Your task to perform on an android device: change keyboard looks Image 0: 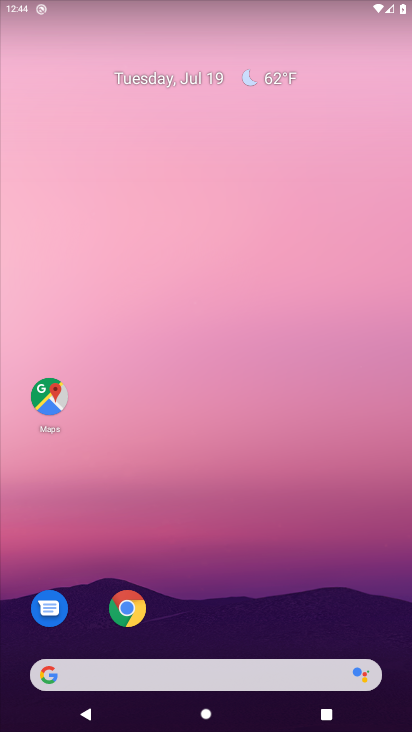
Step 0: press home button
Your task to perform on an android device: change keyboard looks Image 1: 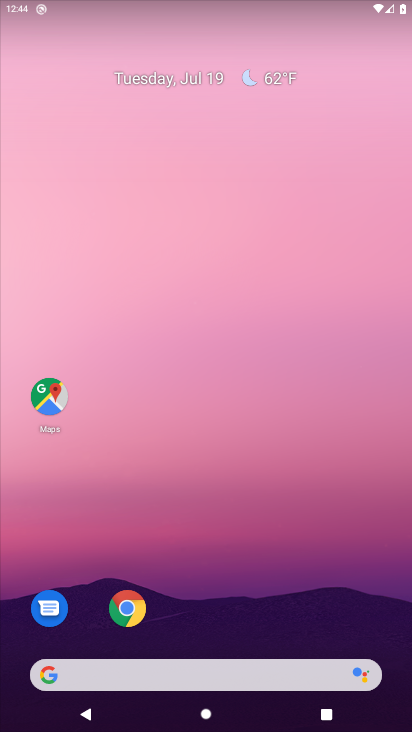
Step 1: drag from (227, 635) to (296, 59)
Your task to perform on an android device: change keyboard looks Image 2: 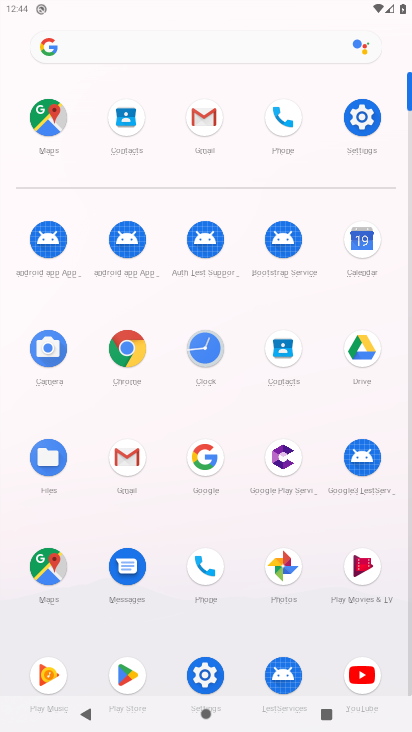
Step 2: click (358, 120)
Your task to perform on an android device: change keyboard looks Image 3: 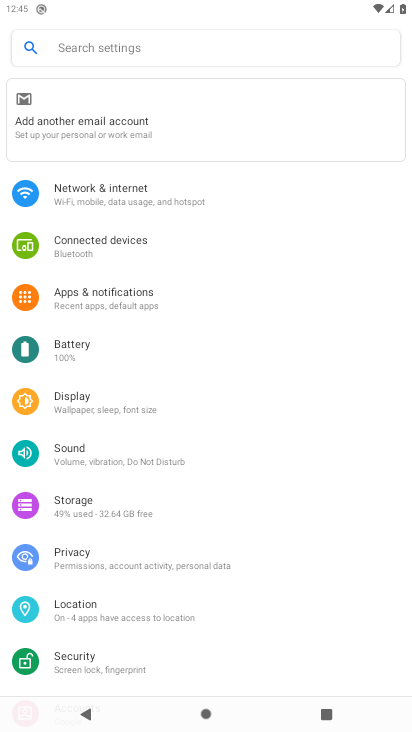
Step 3: drag from (195, 661) to (231, 87)
Your task to perform on an android device: change keyboard looks Image 4: 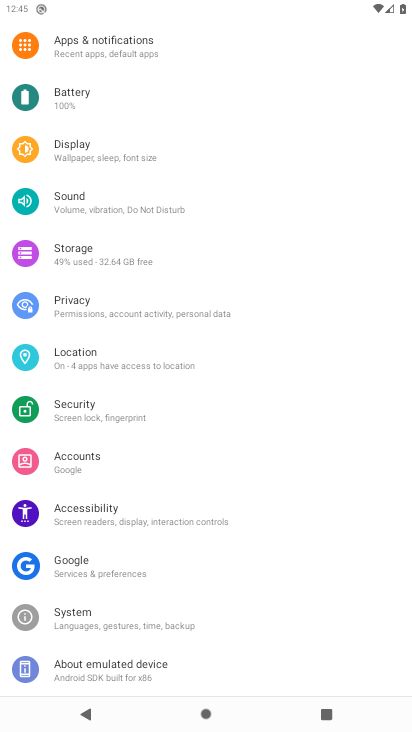
Step 4: click (143, 607)
Your task to perform on an android device: change keyboard looks Image 5: 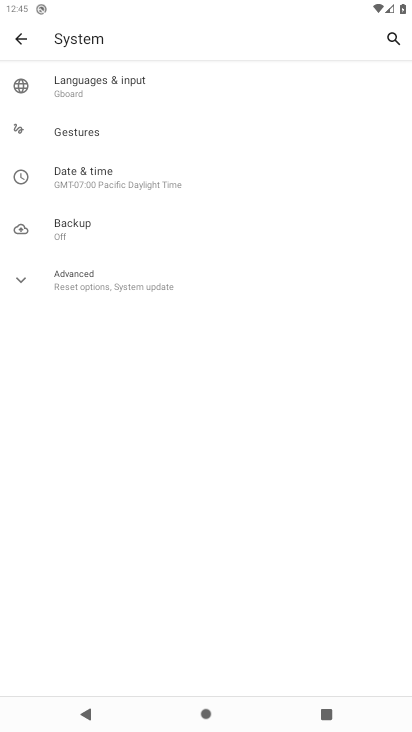
Step 5: click (18, 276)
Your task to perform on an android device: change keyboard looks Image 6: 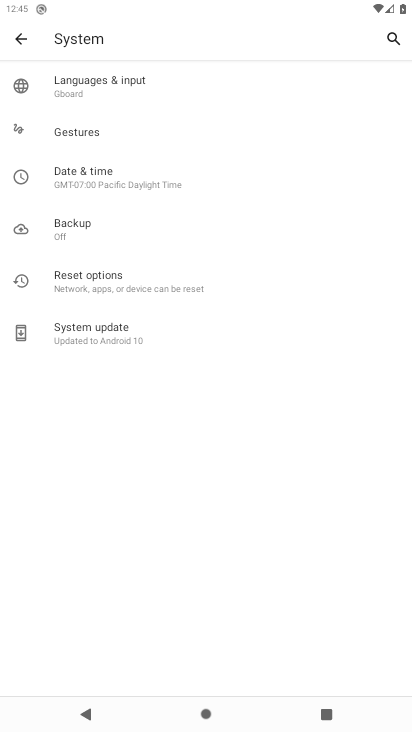
Step 6: click (100, 85)
Your task to perform on an android device: change keyboard looks Image 7: 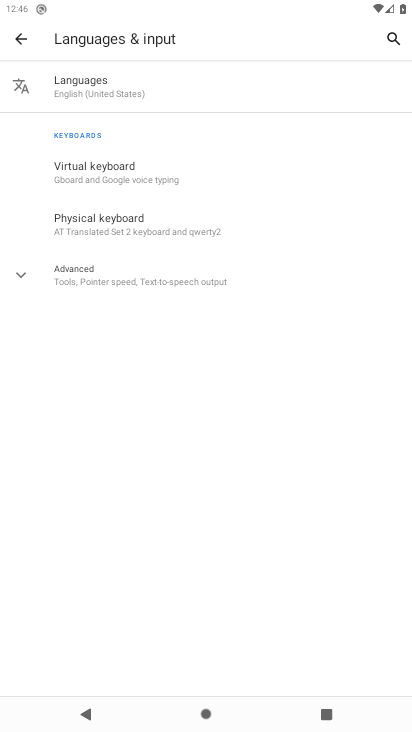
Step 7: click (146, 165)
Your task to perform on an android device: change keyboard looks Image 8: 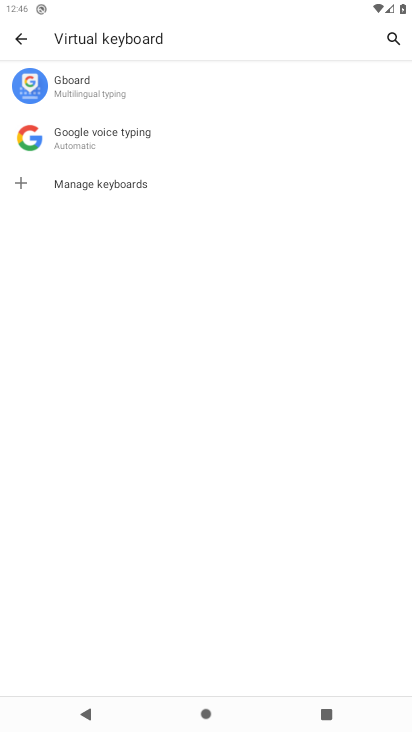
Step 8: click (111, 81)
Your task to perform on an android device: change keyboard looks Image 9: 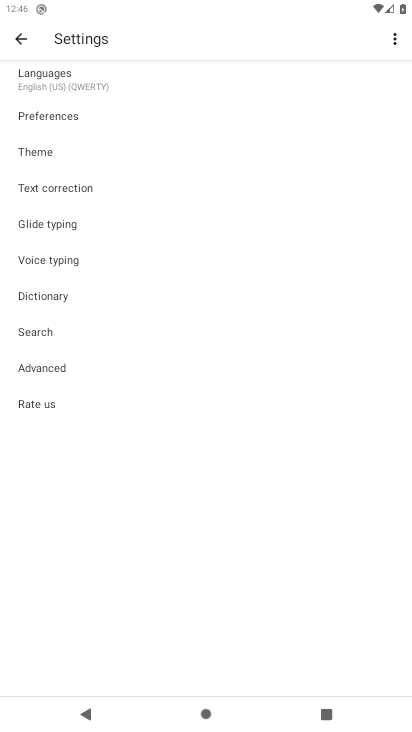
Step 9: click (60, 150)
Your task to perform on an android device: change keyboard looks Image 10: 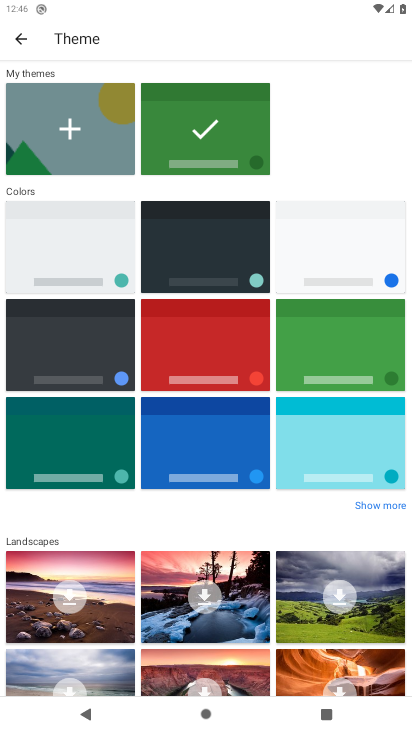
Step 10: click (353, 438)
Your task to perform on an android device: change keyboard looks Image 11: 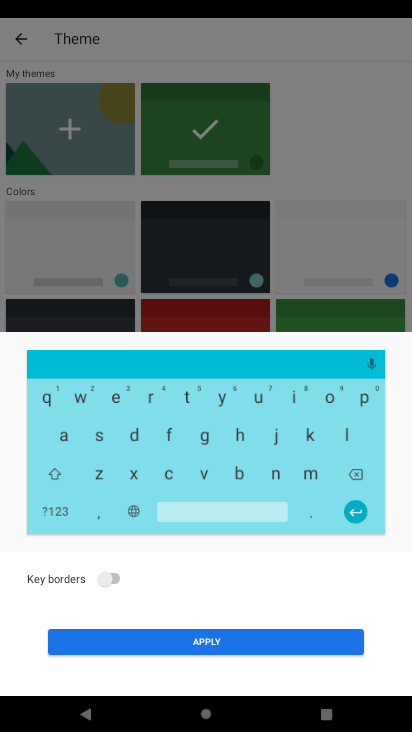
Step 11: click (210, 636)
Your task to perform on an android device: change keyboard looks Image 12: 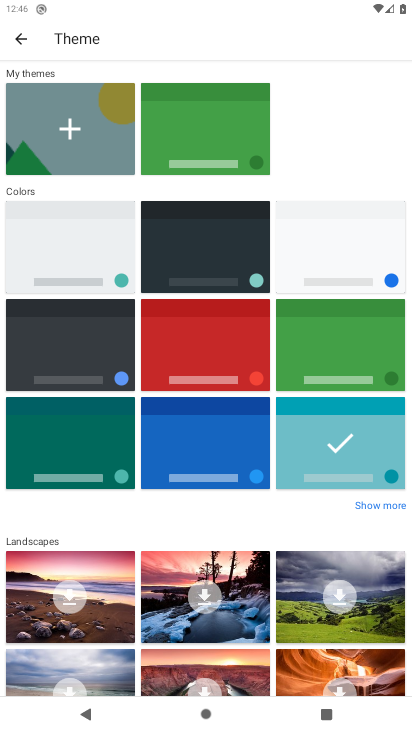
Step 12: task complete